Your task to perform on an android device: Empty the shopping cart on ebay.com. Add asus rog to the cart on ebay.com, then select checkout. Image 0: 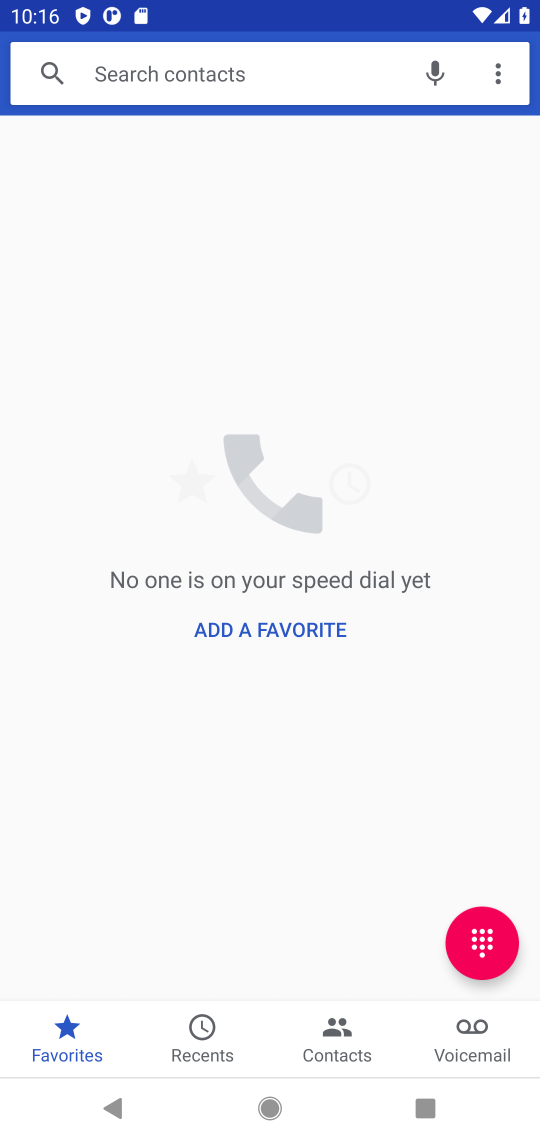
Step 0: press home button
Your task to perform on an android device: Empty the shopping cart on ebay.com. Add asus rog to the cart on ebay.com, then select checkout. Image 1: 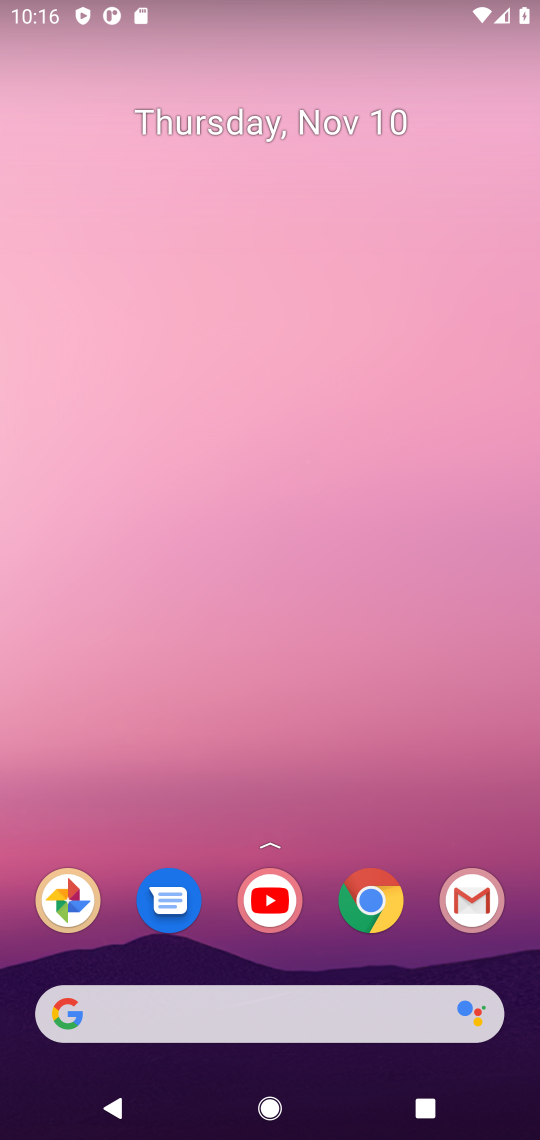
Step 1: click (371, 908)
Your task to perform on an android device: Empty the shopping cart on ebay.com. Add asus rog to the cart on ebay.com, then select checkout. Image 2: 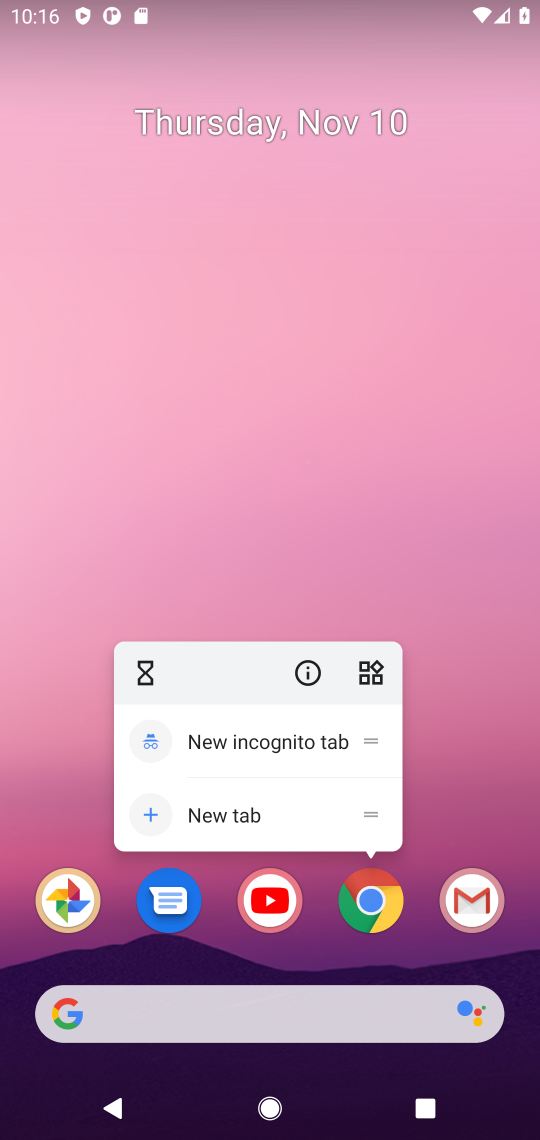
Step 2: click (371, 908)
Your task to perform on an android device: Empty the shopping cart on ebay.com. Add asus rog to the cart on ebay.com, then select checkout. Image 3: 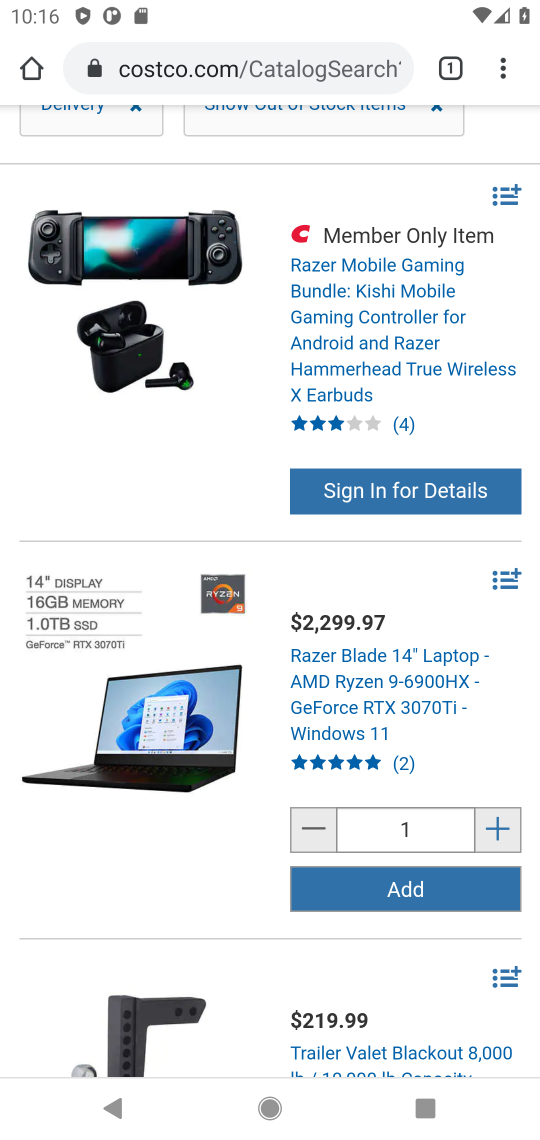
Step 3: click (263, 67)
Your task to perform on an android device: Empty the shopping cart on ebay.com. Add asus rog to the cart on ebay.com, then select checkout. Image 4: 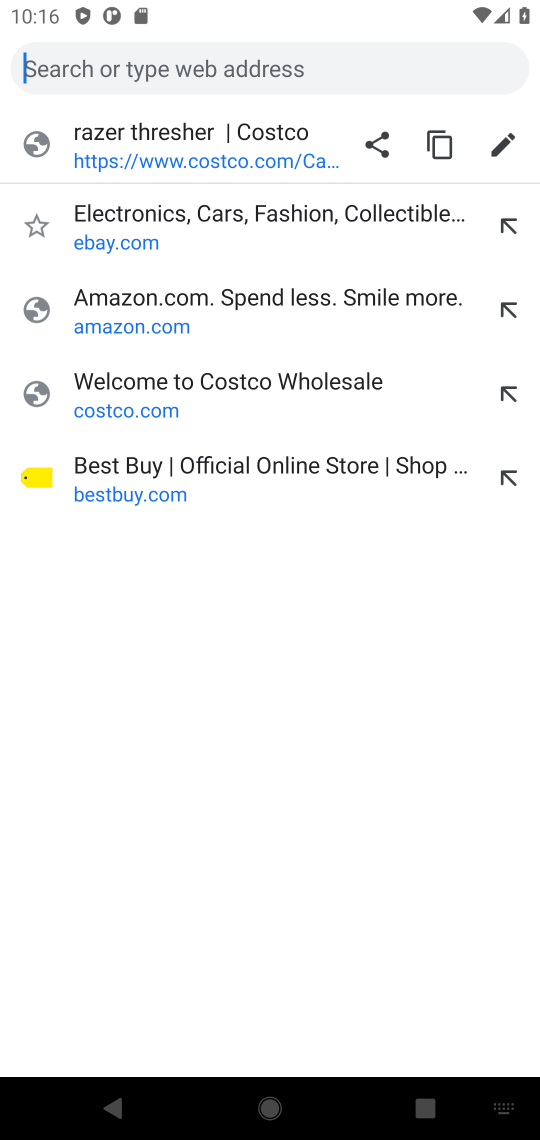
Step 4: click (141, 244)
Your task to perform on an android device: Empty the shopping cart on ebay.com. Add asus rog to the cart on ebay.com, then select checkout. Image 5: 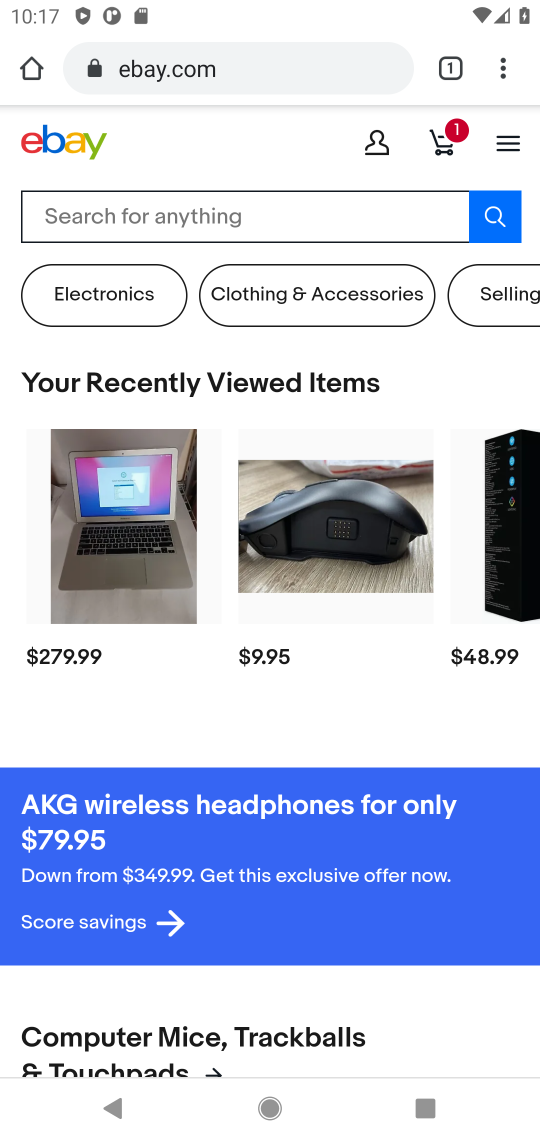
Step 5: click (108, 214)
Your task to perform on an android device: Empty the shopping cart on ebay.com. Add asus rog to the cart on ebay.com, then select checkout. Image 6: 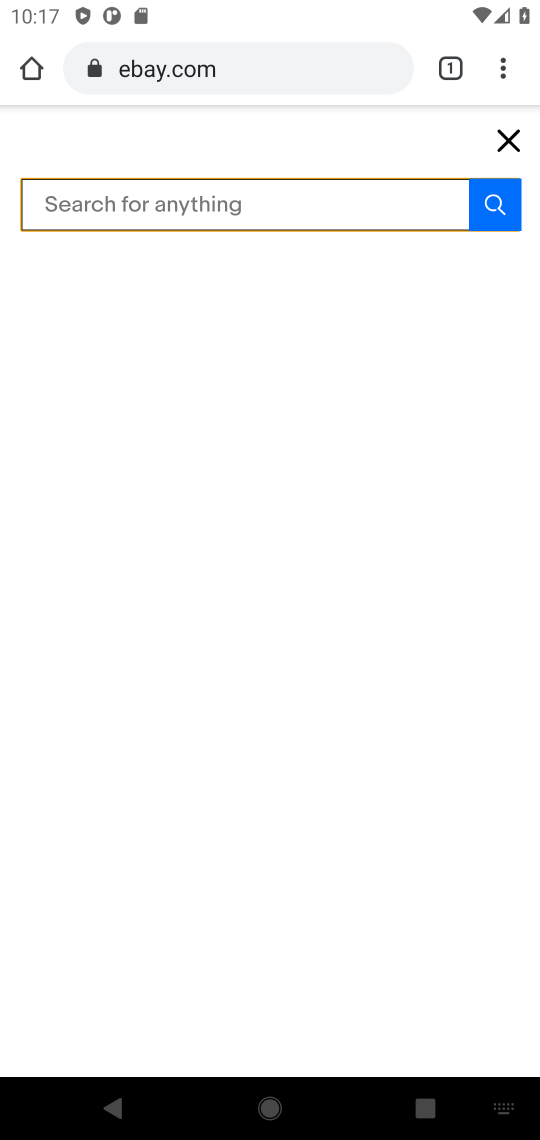
Step 6: type " asus rog "
Your task to perform on an android device: Empty the shopping cart on ebay.com. Add asus rog to the cart on ebay.com, then select checkout. Image 7: 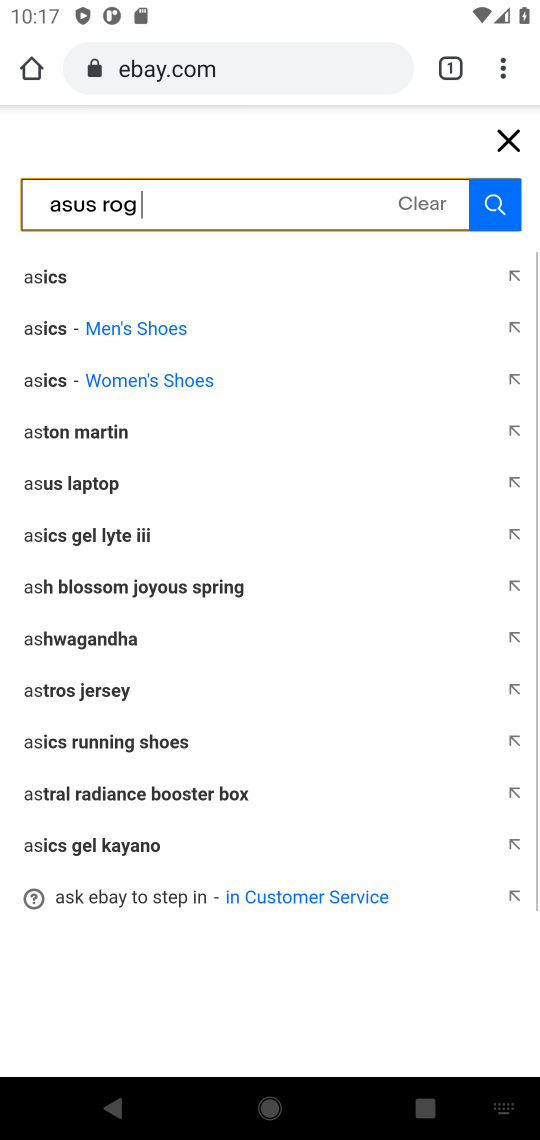
Step 7: press enter
Your task to perform on an android device: Empty the shopping cart on ebay.com. Add asus rog to the cart on ebay.com, then select checkout. Image 8: 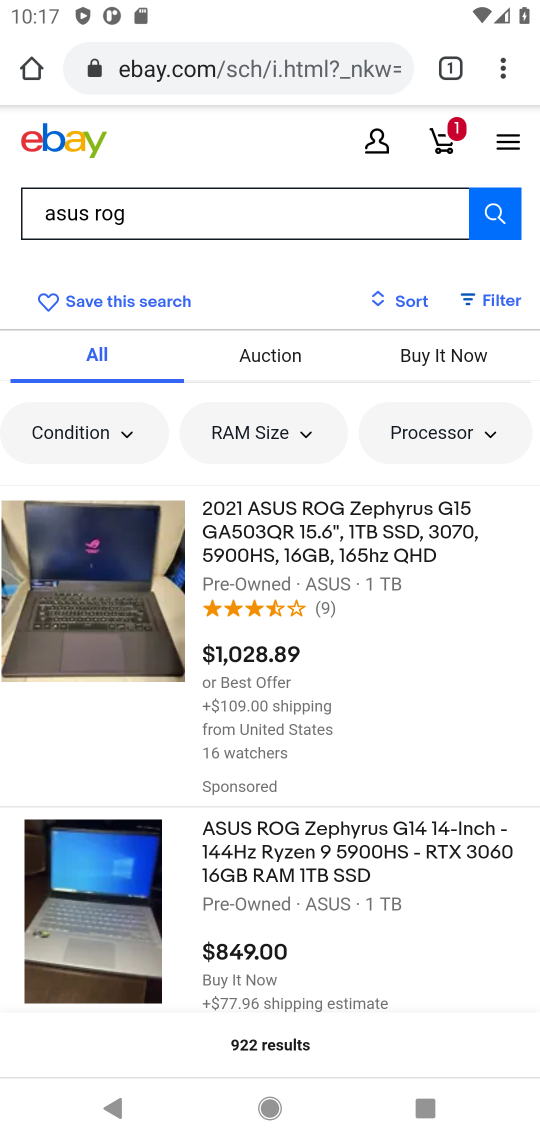
Step 8: click (347, 530)
Your task to perform on an android device: Empty the shopping cart on ebay.com. Add asus rog to the cart on ebay.com, then select checkout. Image 9: 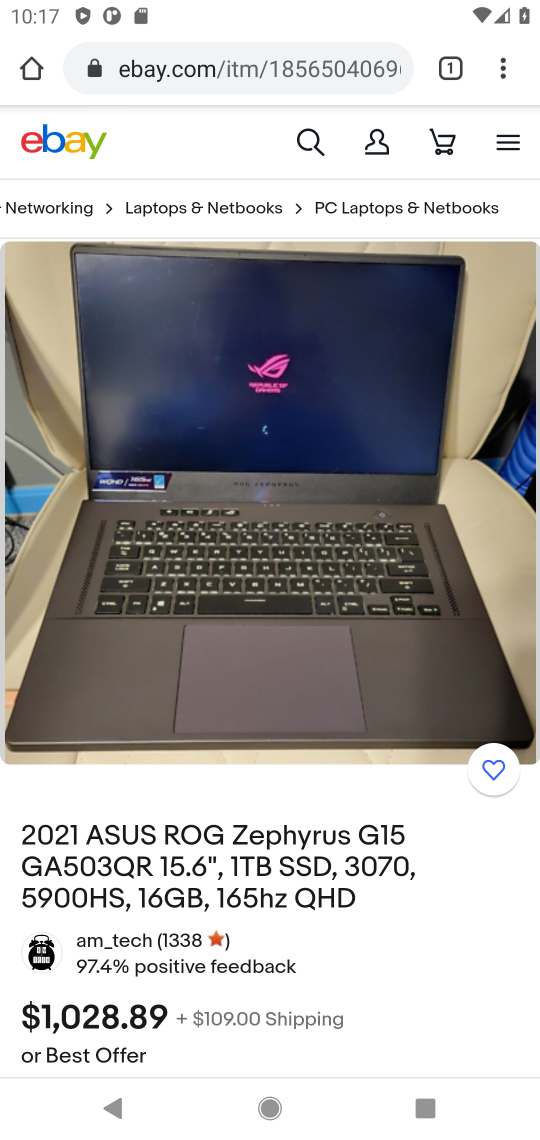
Step 9: drag from (351, 981) to (437, 294)
Your task to perform on an android device: Empty the shopping cart on ebay.com. Add asus rog to the cart on ebay.com, then select checkout. Image 10: 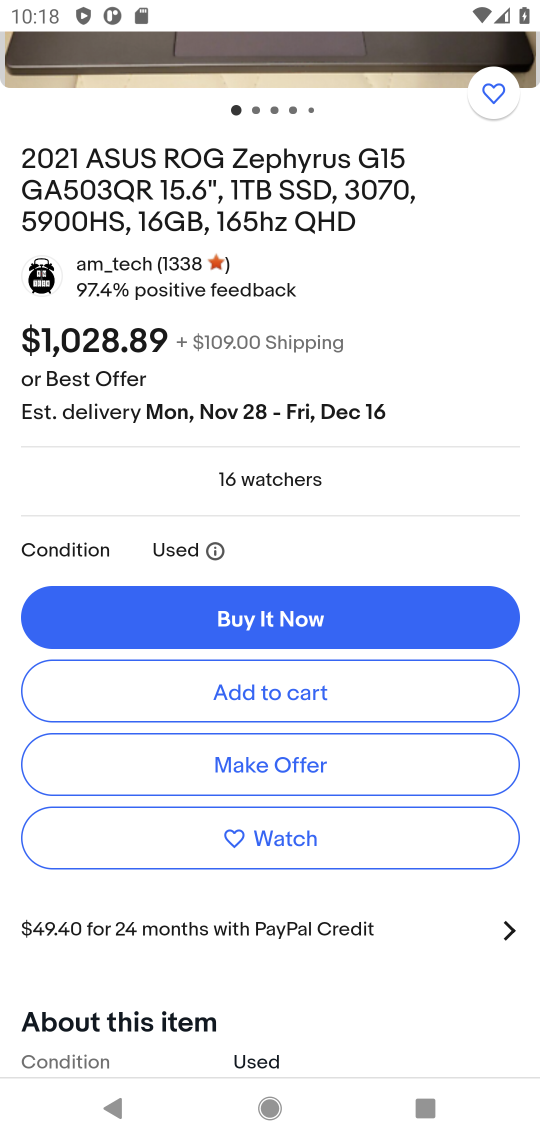
Step 10: click (259, 689)
Your task to perform on an android device: Empty the shopping cart on ebay.com. Add asus rog to the cart on ebay.com, then select checkout. Image 11: 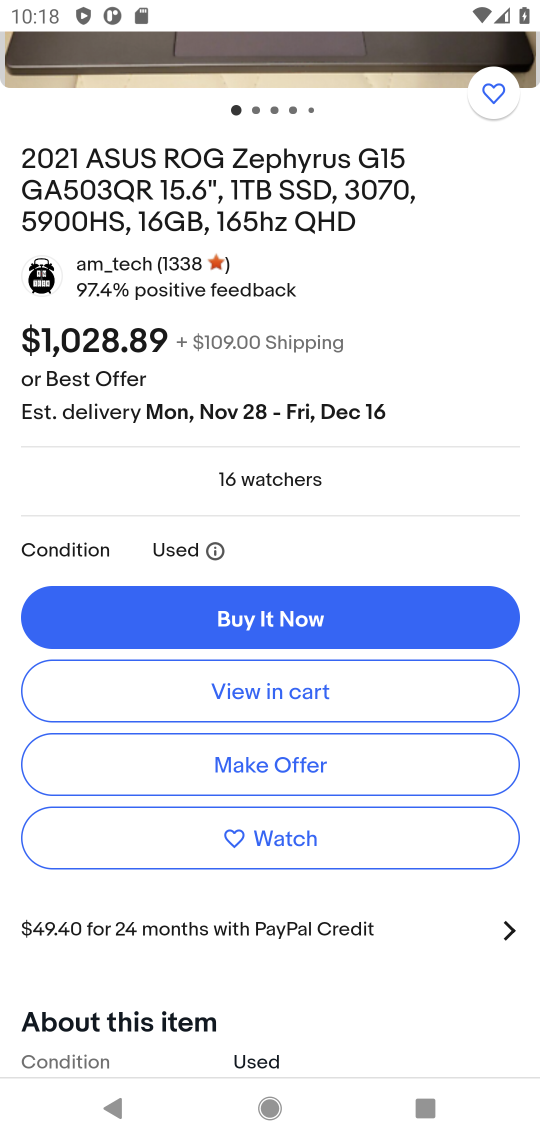
Step 11: click (299, 689)
Your task to perform on an android device: Empty the shopping cart on ebay.com. Add asus rog to the cart on ebay.com, then select checkout. Image 12: 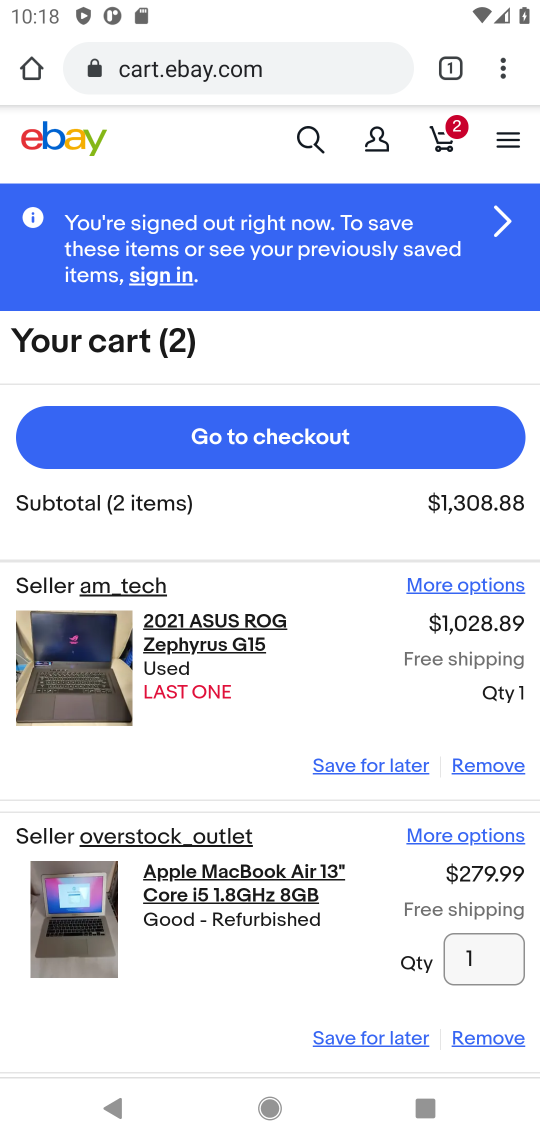
Step 12: click (484, 1034)
Your task to perform on an android device: Empty the shopping cart on ebay.com. Add asus rog to the cart on ebay.com, then select checkout. Image 13: 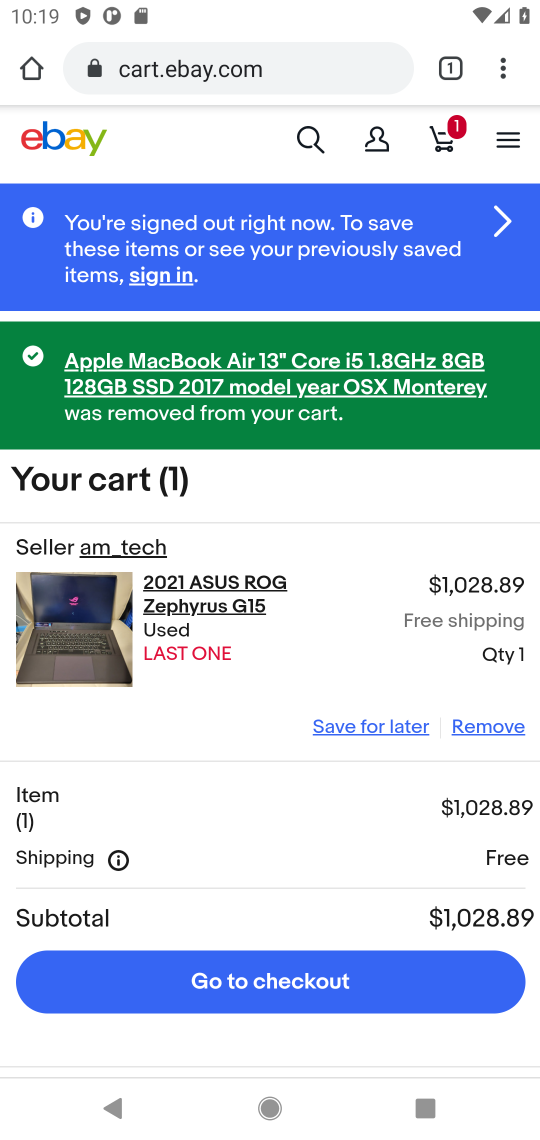
Step 13: click (279, 978)
Your task to perform on an android device: Empty the shopping cart on ebay.com. Add asus rog to the cart on ebay.com, then select checkout. Image 14: 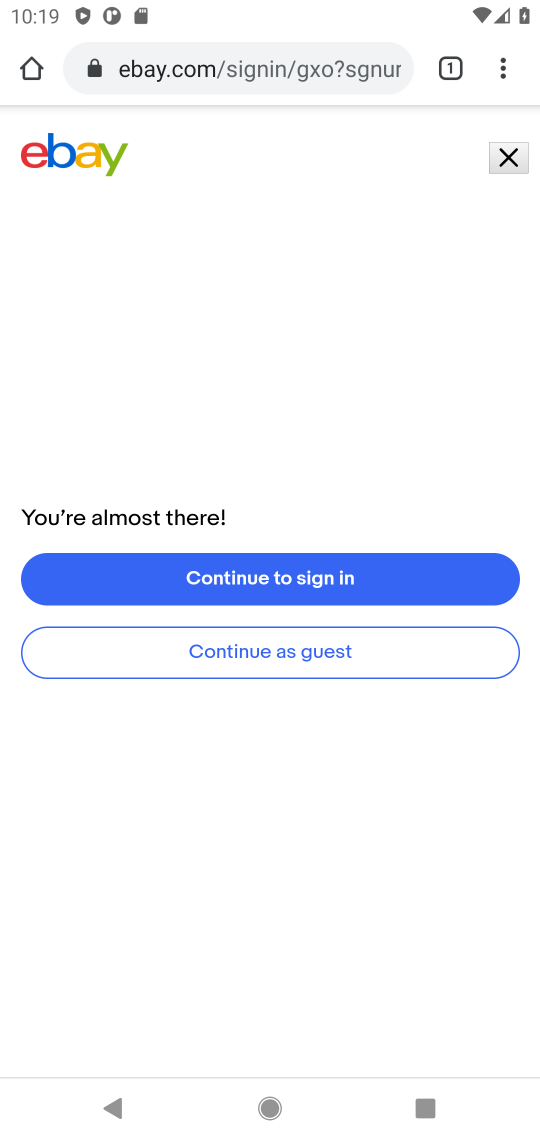
Step 14: task complete